Your task to perform on an android device: Open my contact list Image 0: 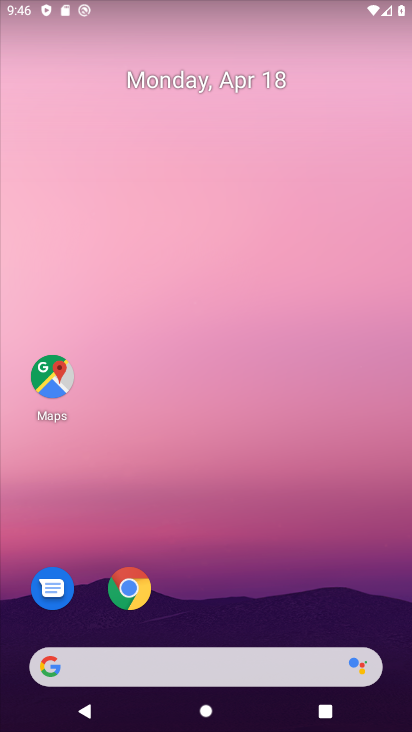
Step 0: drag from (393, 632) to (351, 128)
Your task to perform on an android device: Open my contact list Image 1: 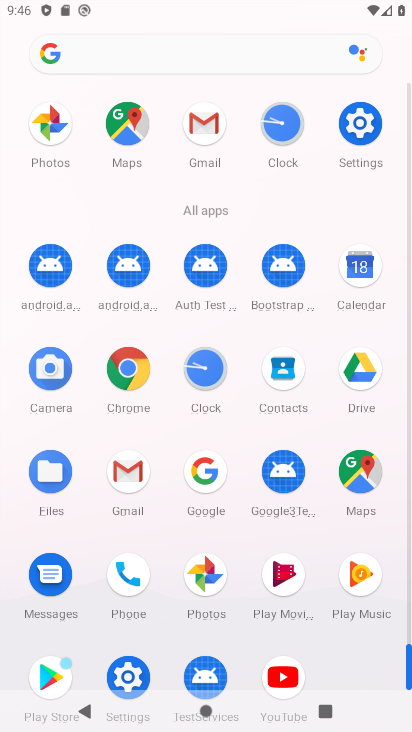
Step 1: click (279, 370)
Your task to perform on an android device: Open my contact list Image 2: 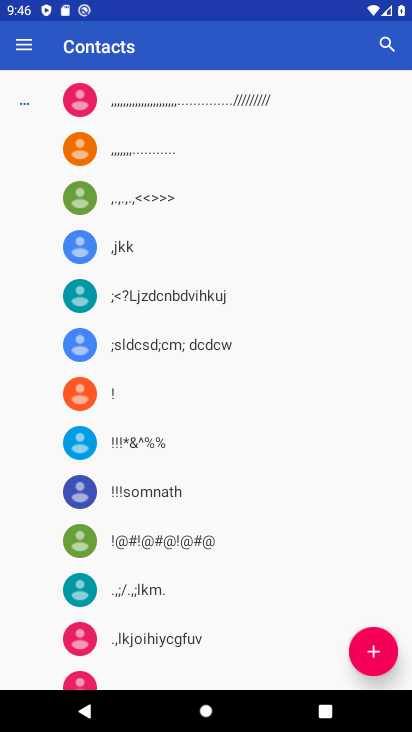
Step 2: task complete